Your task to perform on an android device: change the upload size in google photos Image 0: 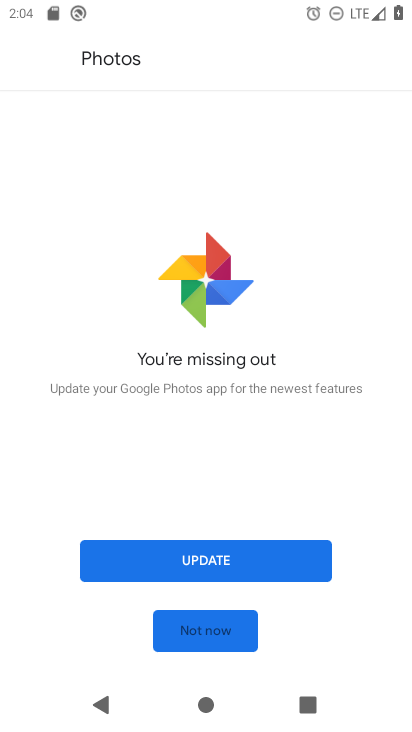
Step 0: press home button
Your task to perform on an android device: change the upload size in google photos Image 1: 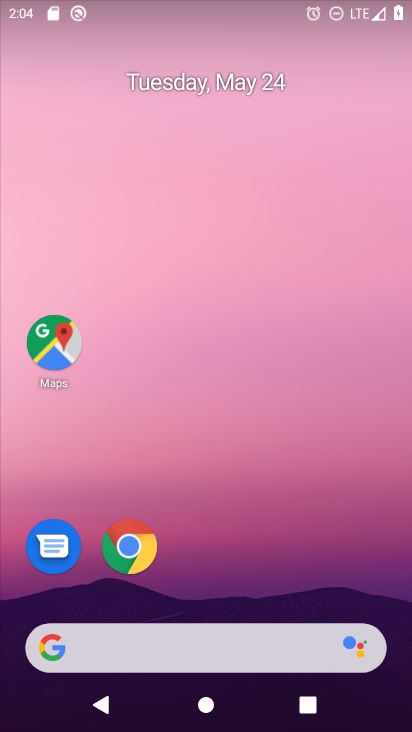
Step 1: drag from (256, 634) to (245, 56)
Your task to perform on an android device: change the upload size in google photos Image 2: 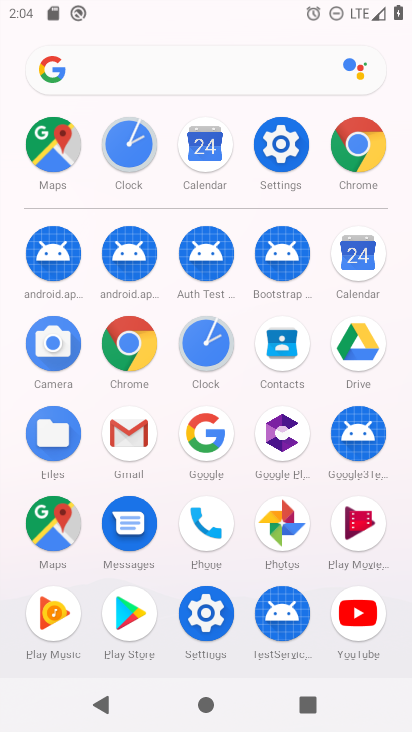
Step 2: click (279, 523)
Your task to perform on an android device: change the upload size in google photos Image 3: 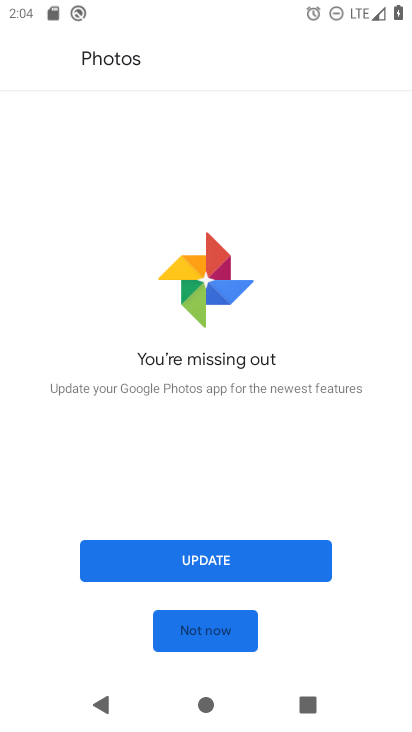
Step 3: click (194, 562)
Your task to perform on an android device: change the upload size in google photos Image 4: 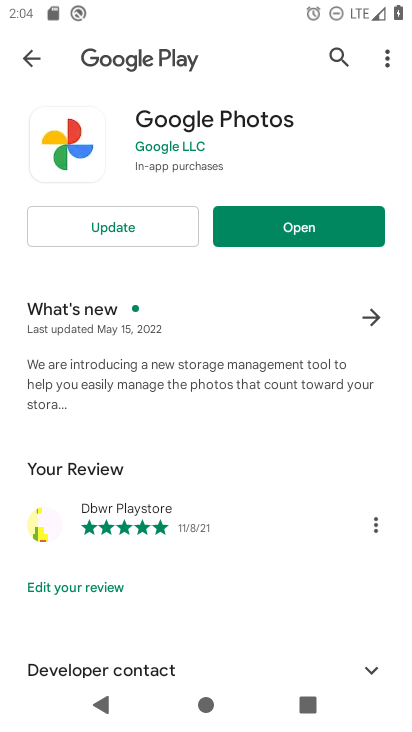
Step 4: click (170, 218)
Your task to perform on an android device: change the upload size in google photos Image 5: 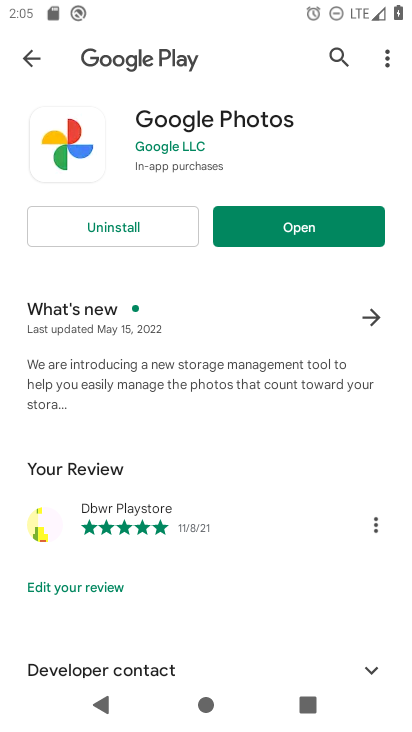
Step 5: click (272, 231)
Your task to perform on an android device: change the upload size in google photos Image 6: 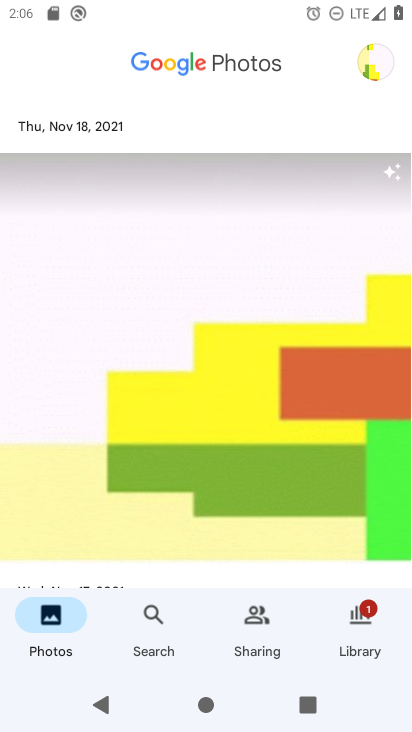
Step 6: click (377, 77)
Your task to perform on an android device: change the upload size in google photos Image 7: 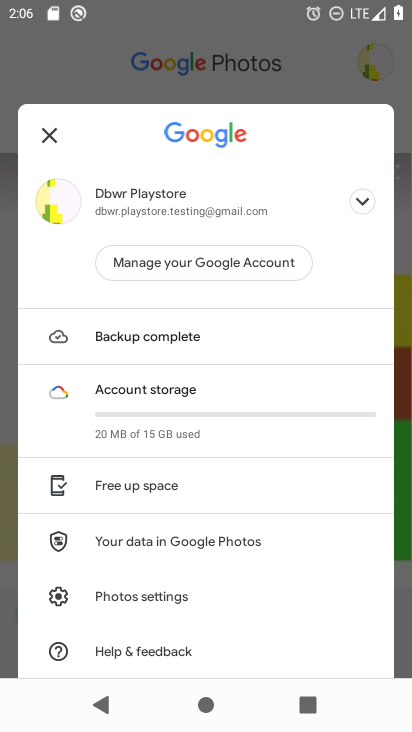
Step 7: click (159, 598)
Your task to perform on an android device: change the upload size in google photos Image 8: 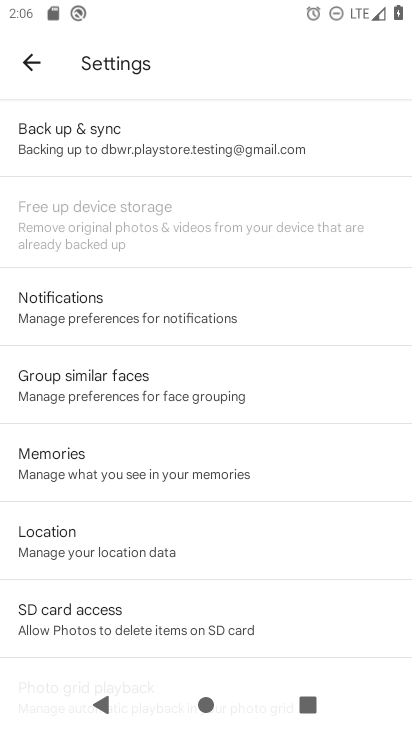
Step 8: click (121, 144)
Your task to perform on an android device: change the upload size in google photos Image 9: 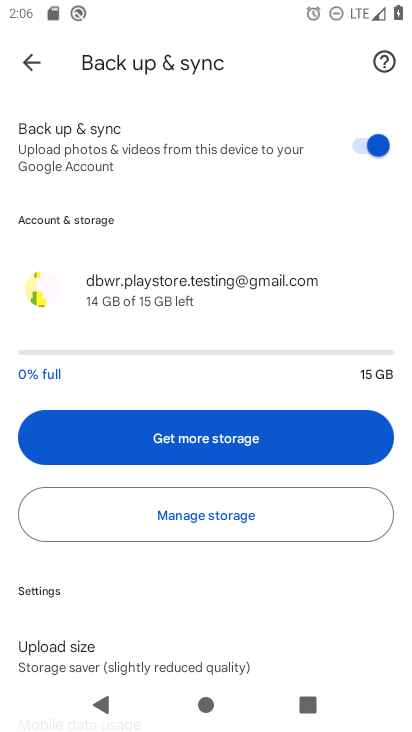
Step 9: task complete